Your task to perform on an android device: open app "WhatsApp Messenger" Image 0: 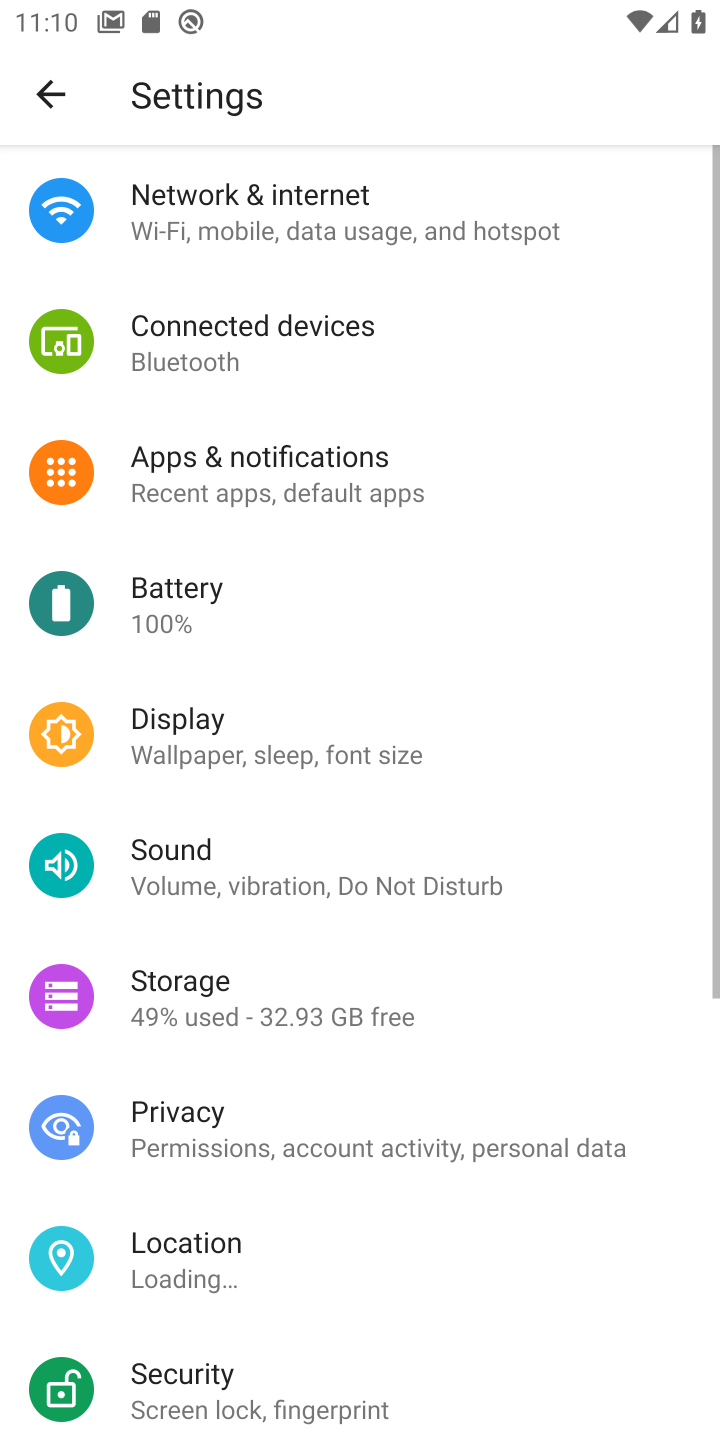
Step 0: press home button
Your task to perform on an android device: open app "WhatsApp Messenger" Image 1: 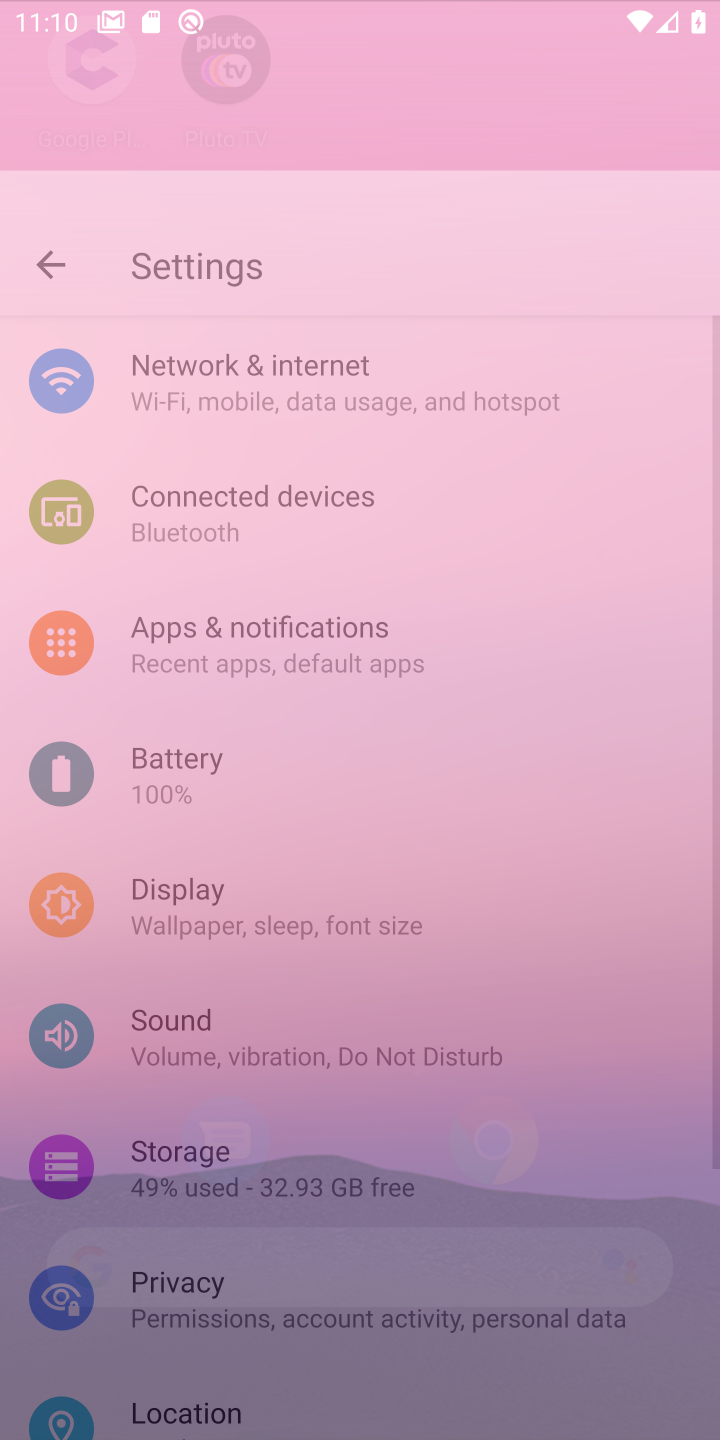
Step 1: press home button
Your task to perform on an android device: open app "WhatsApp Messenger" Image 2: 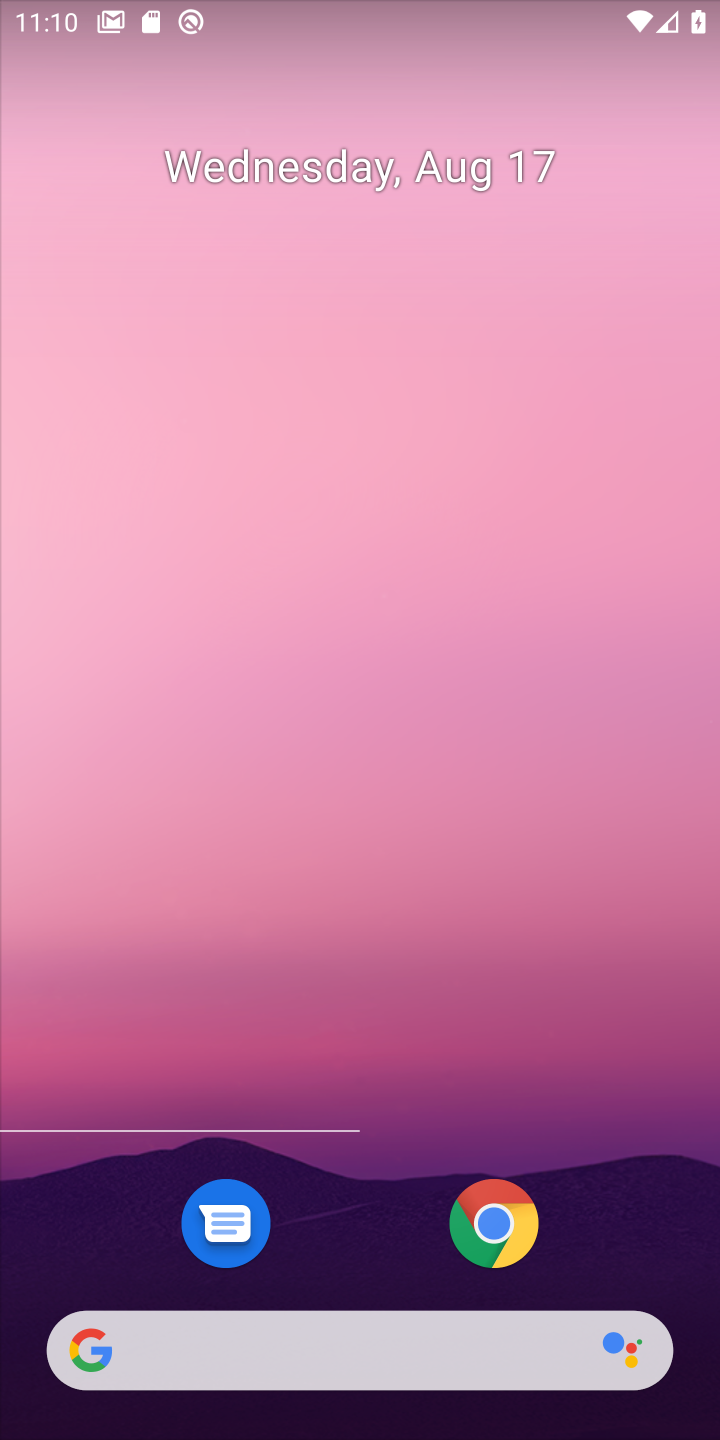
Step 2: drag from (316, 1017) to (269, 147)
Your task to perform on an android device: open app "WhatsApp Messenger" Image 3: 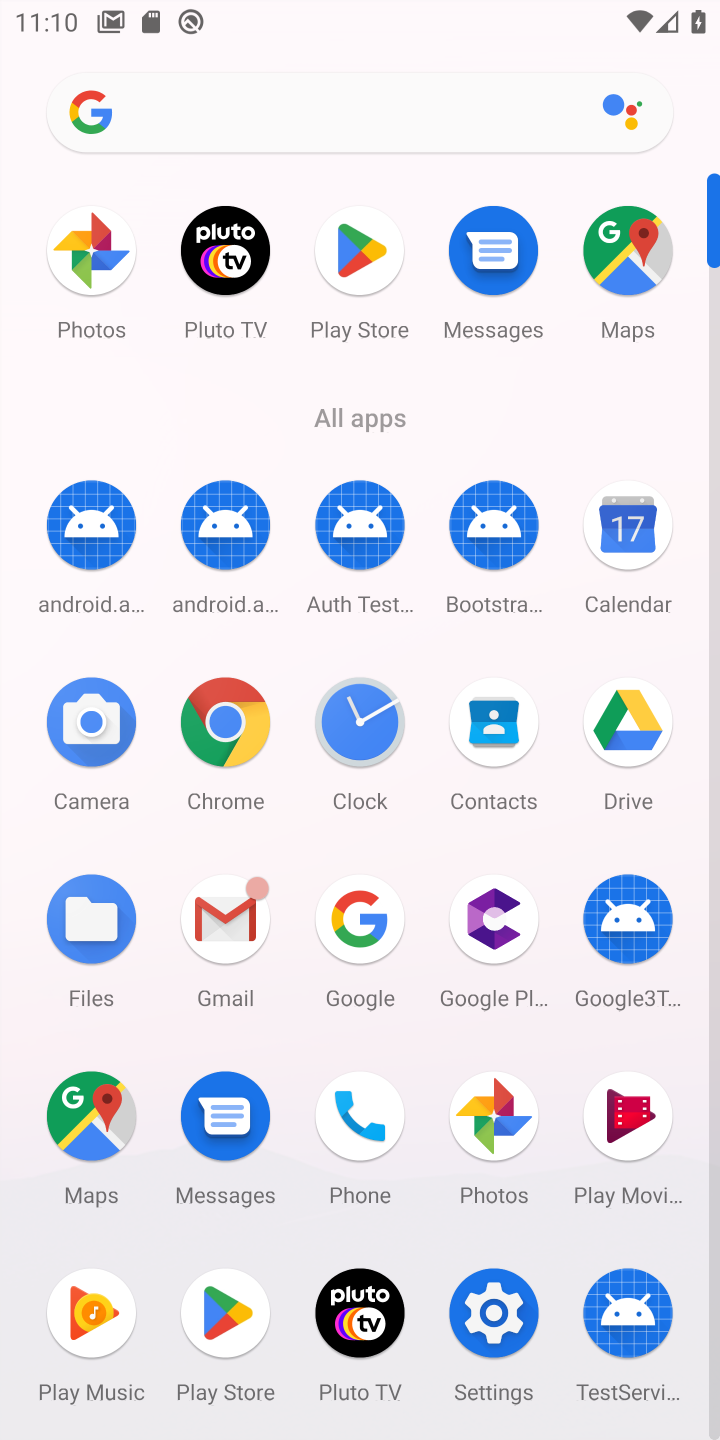
Step 3: click (230, 1305)
Your task to perform on an android device: open app "WhatsApp Messenger" Image 4: 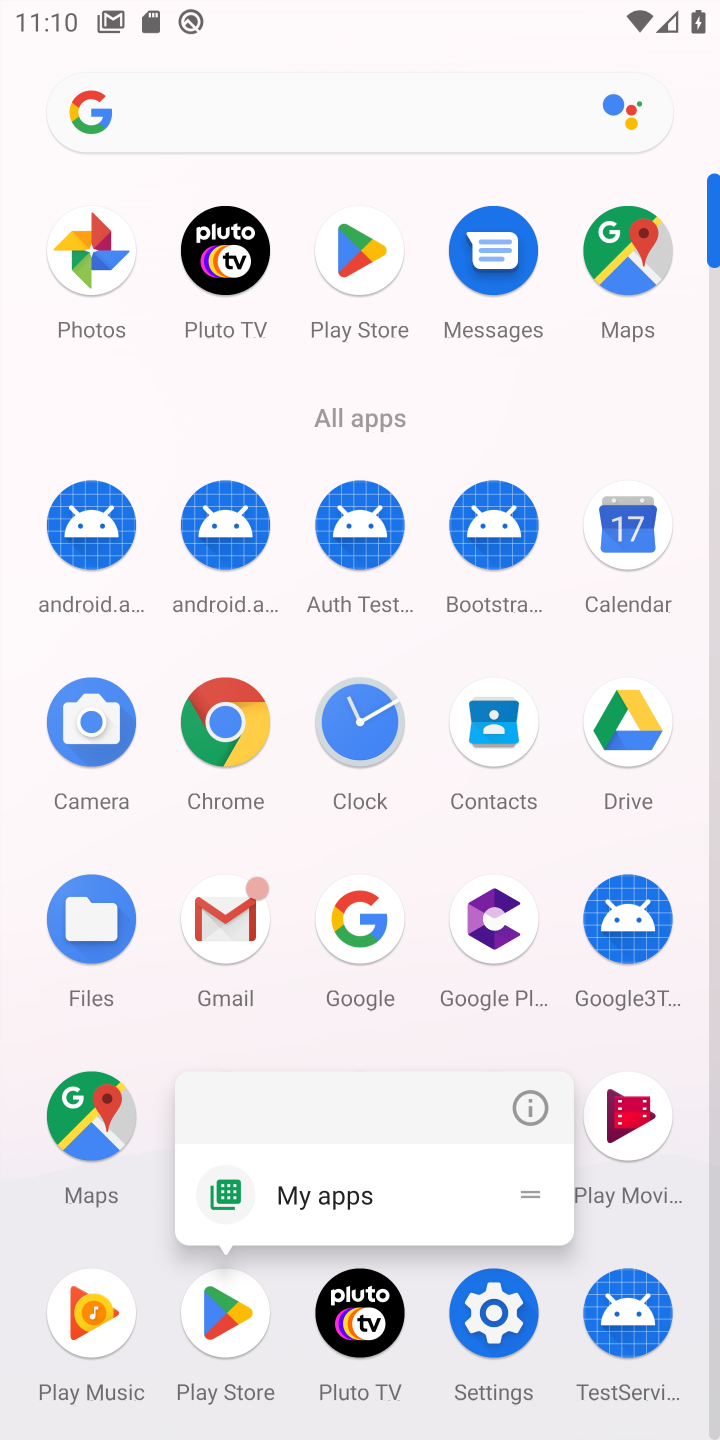
Step 4: click (222, 1319)
Your task to perform on an android device: open app "WhatsApp Messenger" Image 5: 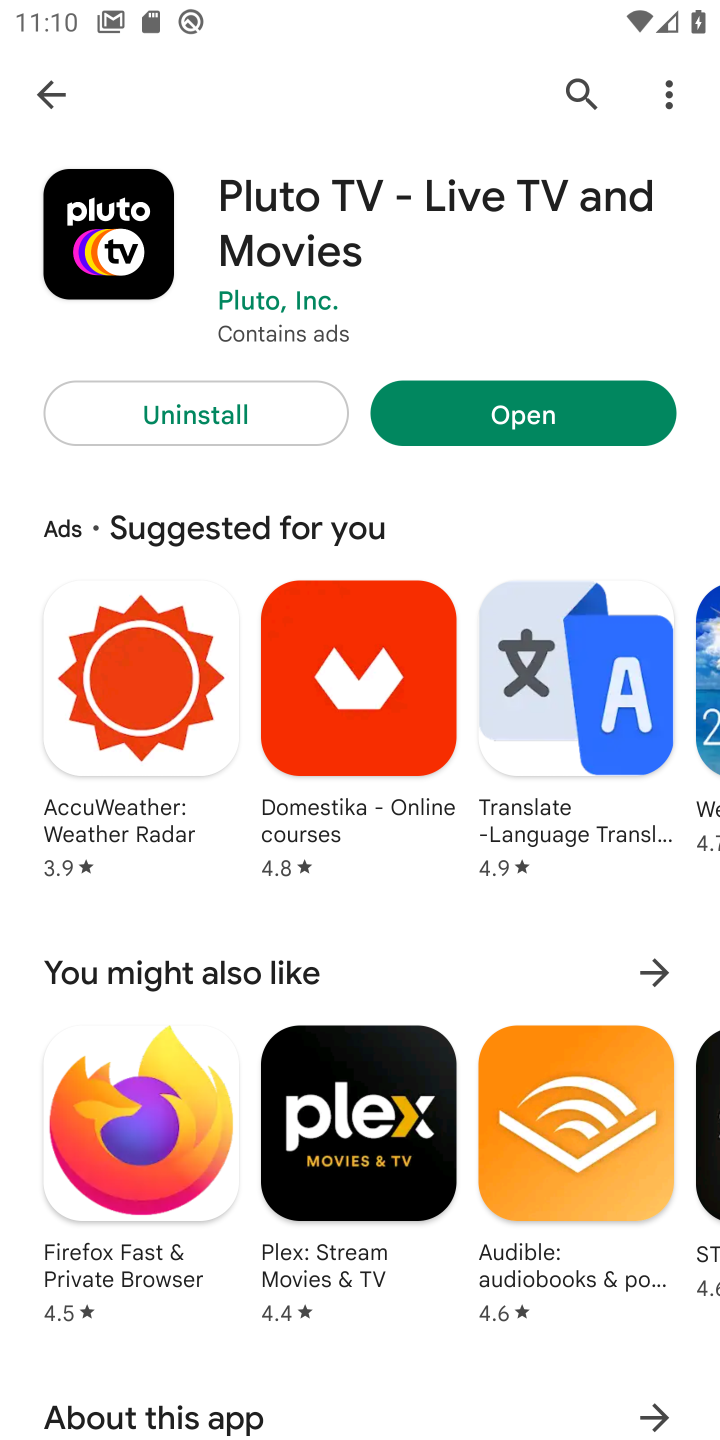
Step 5: click (574, 89)
Your task to perform on an android device: open app "WhatsApp Messenger" Image 6: 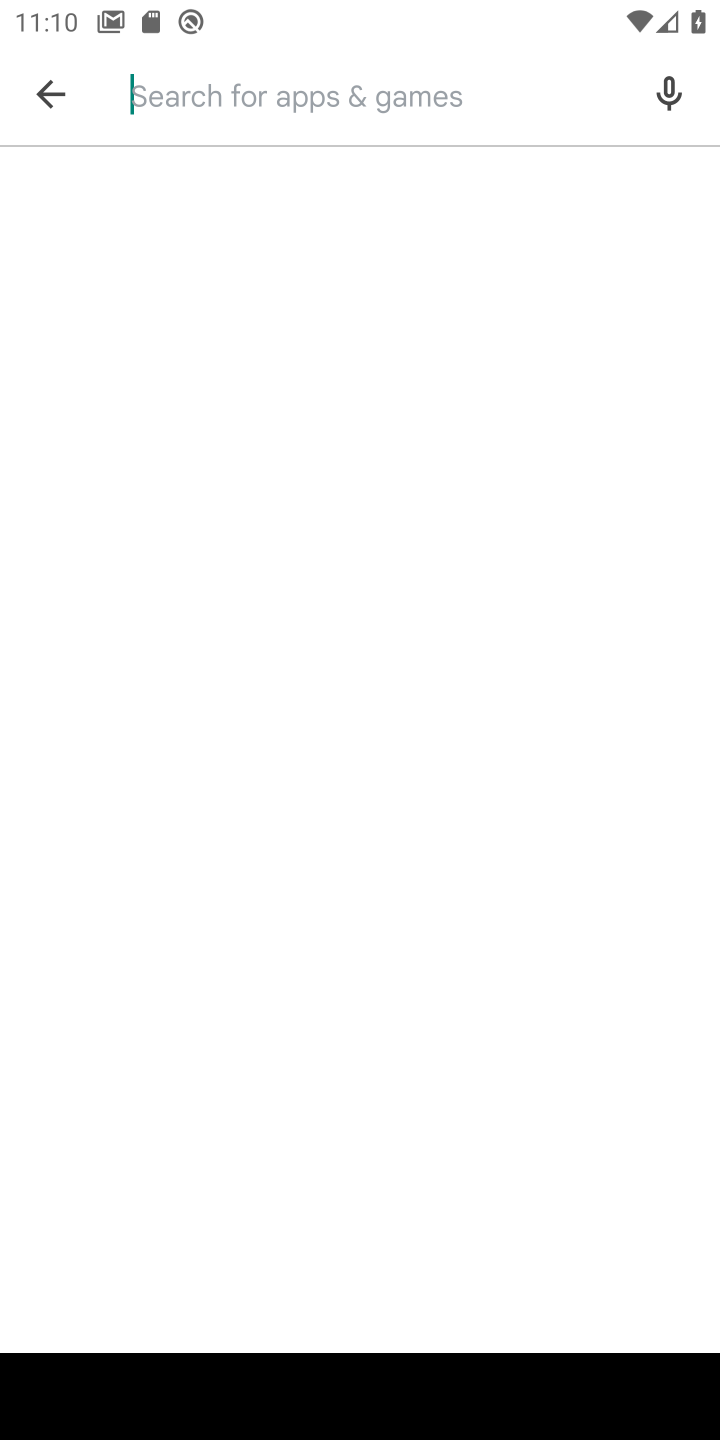
Step 6: type "WhatsApp Messenger"
Your task to perform on an android device: open app "WhatsApp Messenger" Image 7: 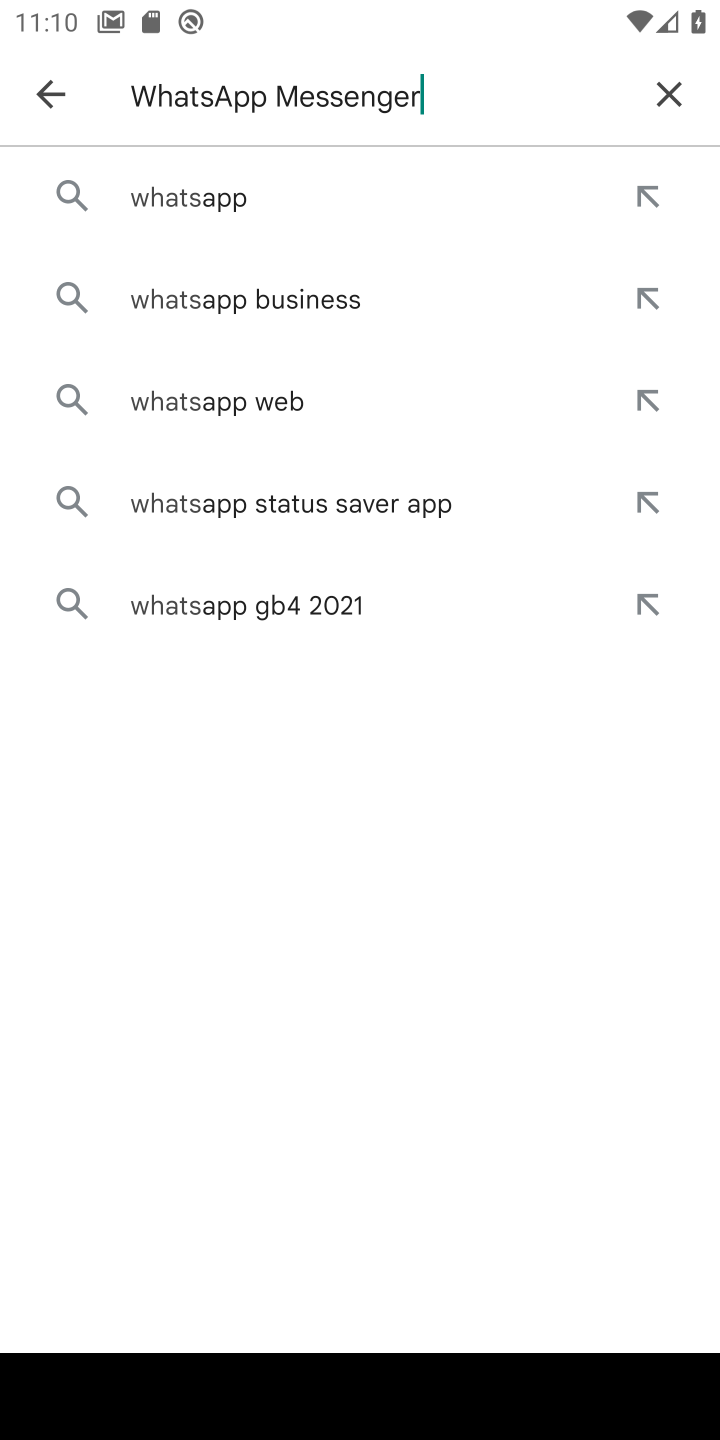
Step 7: type ""
Your task to perform on an android device: open app "WhatsApp Messenger" Image 8: 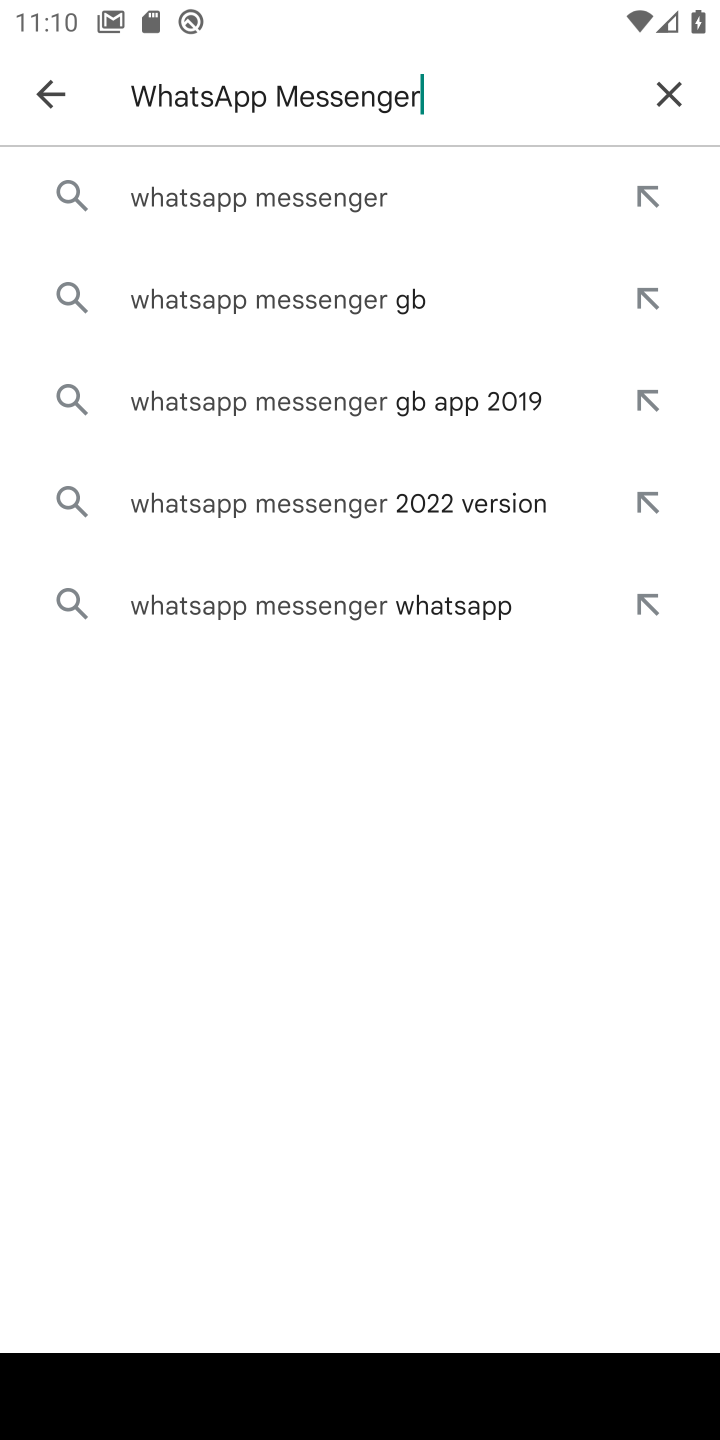
Step 8: click (240, 201)
Your task to perform on an android device: open app "WhatsApp Messenger" Image 9: 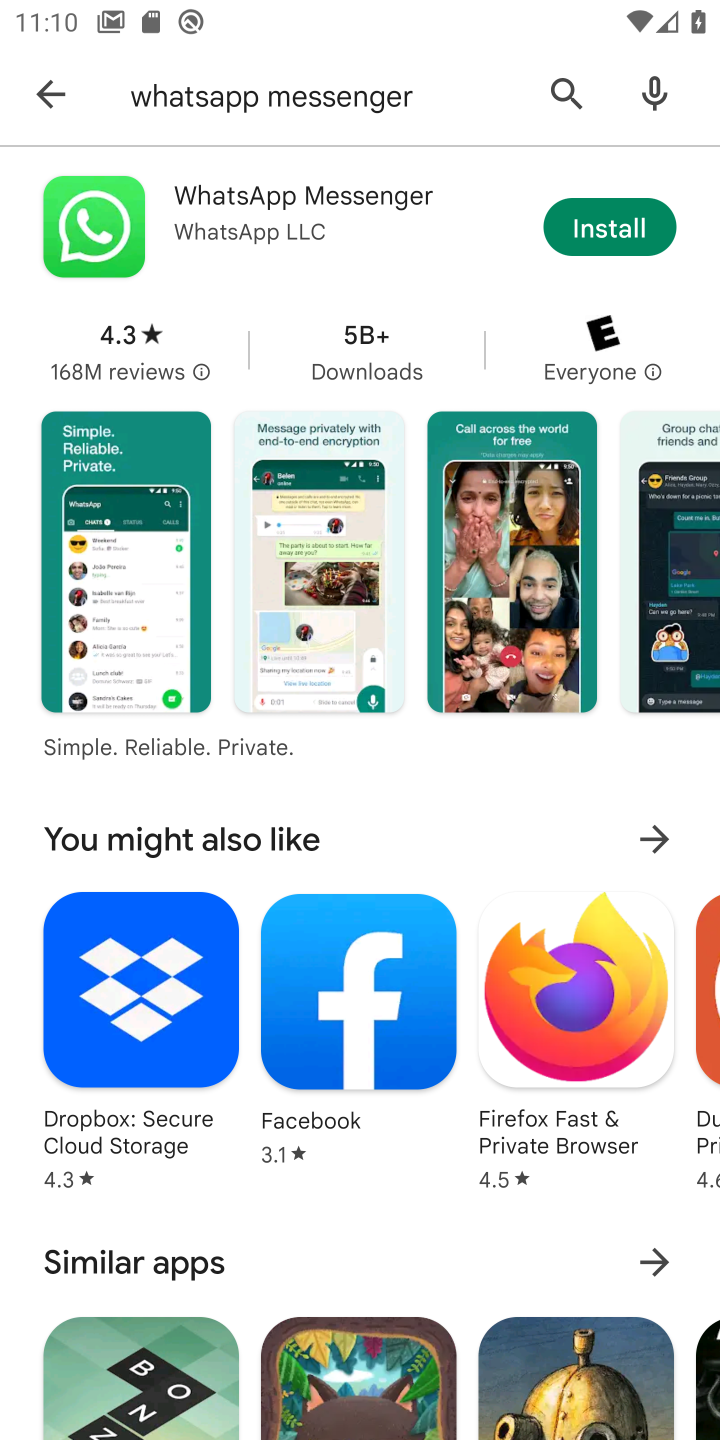
Step 9: task complete